Your task to perform on an android device: Do I have any events tomorrow? Image 0: 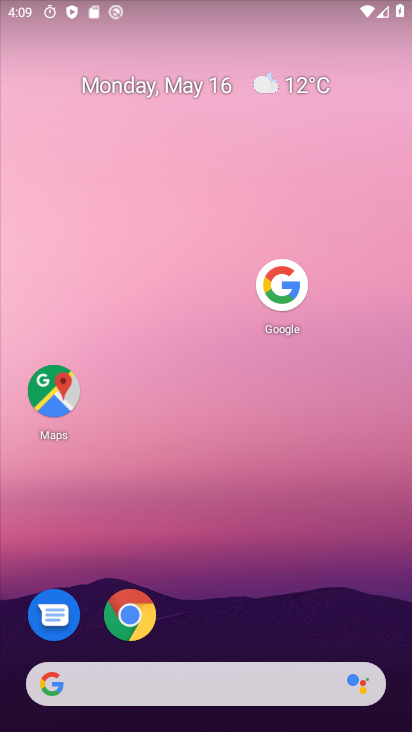
Step 0: drag from (207, 652) to (201, 3)
Your task to perform on an android device: Do I have any events tomorrow? Image 1: 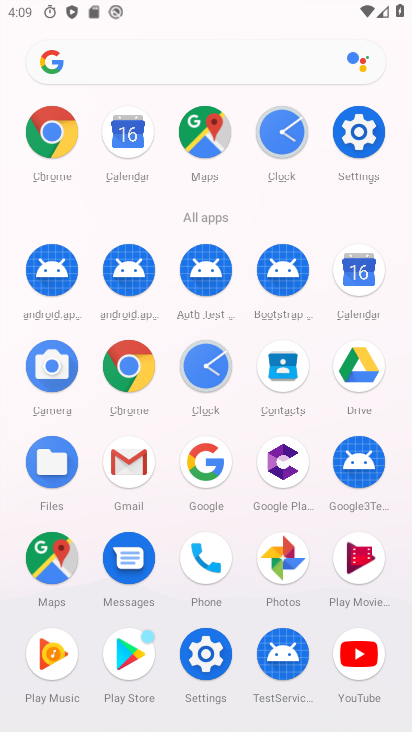
Step 1: click (361, 269)
Your task to perform on an android device: Do I have any events tomorrow? Image 2: 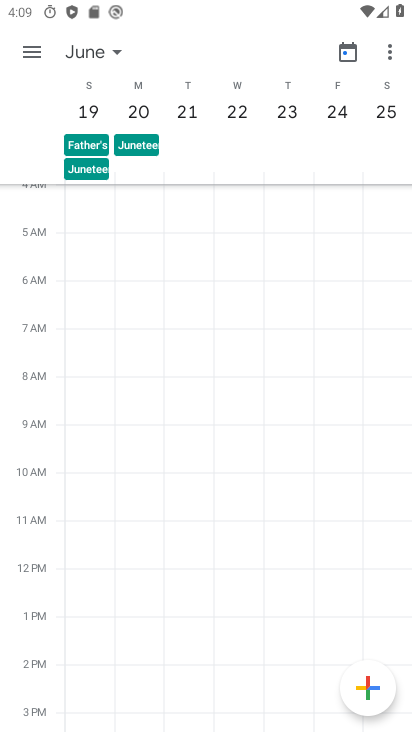
Step 2: click (342, 43)
Your task to perform on an android device: Do I have any events tomorrow? Image 3: 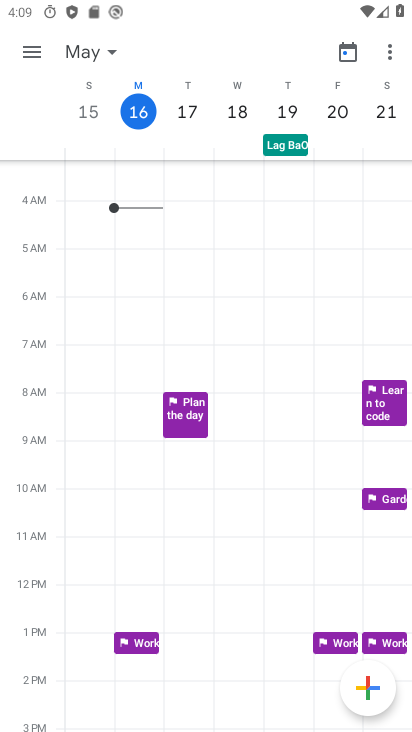
Step 3: click (194, 109)
Your task to perform on an android device: Do I have any events tomorrow? Image 4: 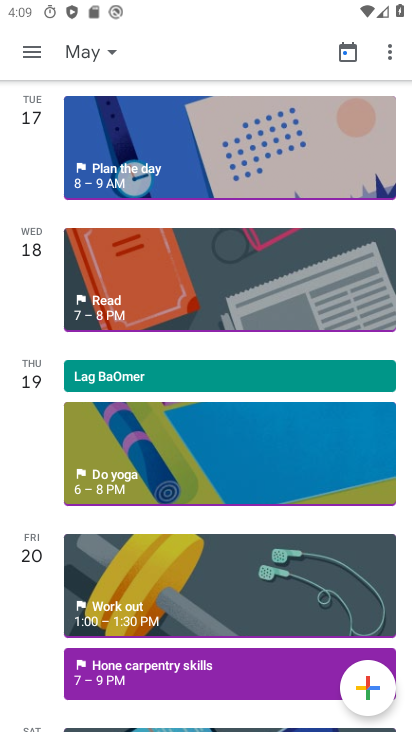
Step 4: task complete